Your task to perform on an android device: Set the phone to "Do not disturb". Image 0: 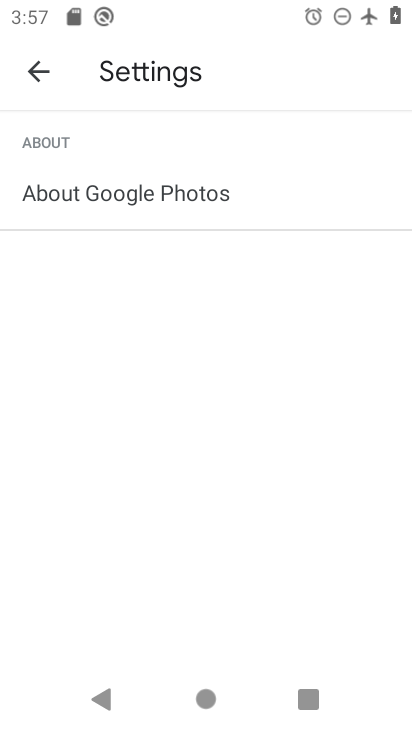
Step 0: drag from (364, 6) to (261, 391)
Your task to perform on an android device: Set the phone to "Do not disturb". Image 1: 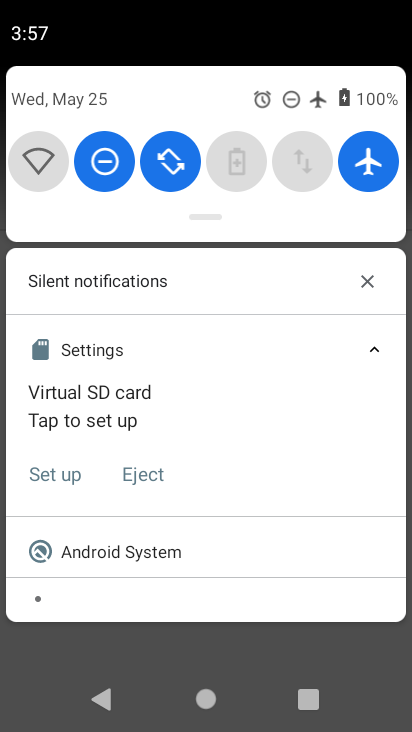
Step 1: task complete